Your task to perform on an android device: check storage Image 0: 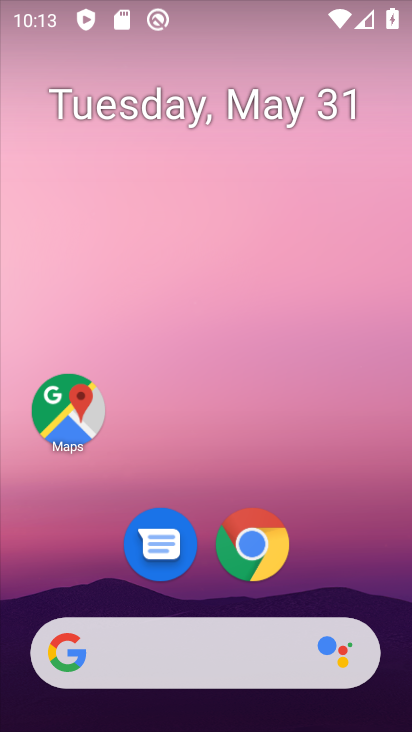
Step 0: drag from (208, 582) to (226, 186)
Your task to perform on an android device: check storage Image 1: 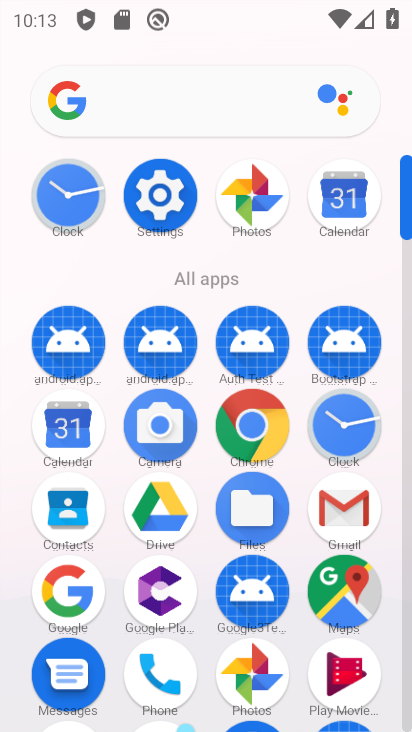
Step 1: click (137, 207)
Your task to perform on an android device: check storage Image 2: 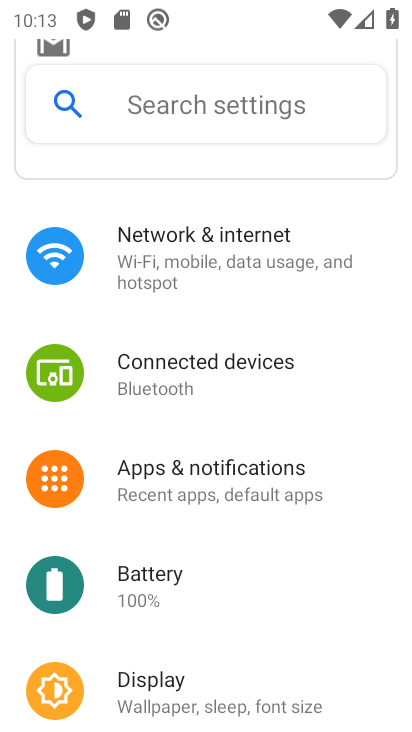
Step 2: drag from (231, 640) to (253, 309)
Your task to perform on an android device: check storage Image 3: 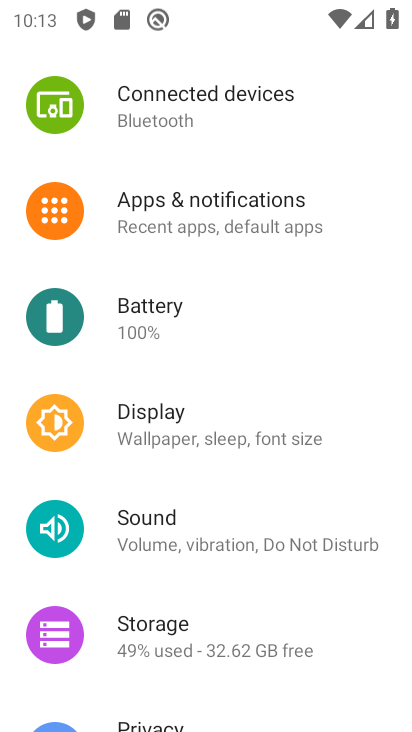
Step 3: click (235, 637)
Your task to perform on an android device: check storage Image 4: 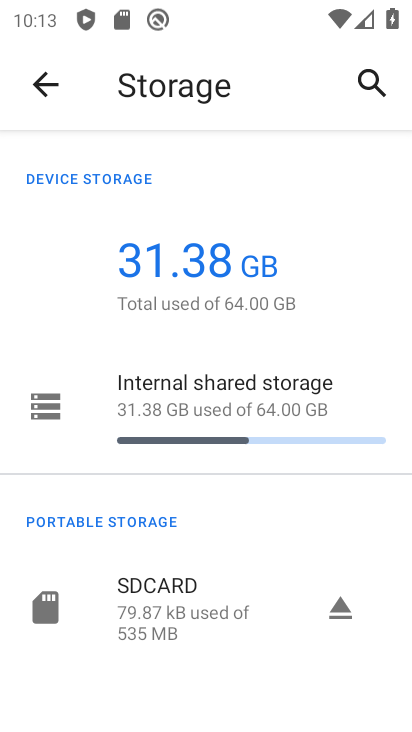
Step 4: task complete